Your task to perform on an android device: Search for Mexican restaurants on Maps Image 0: 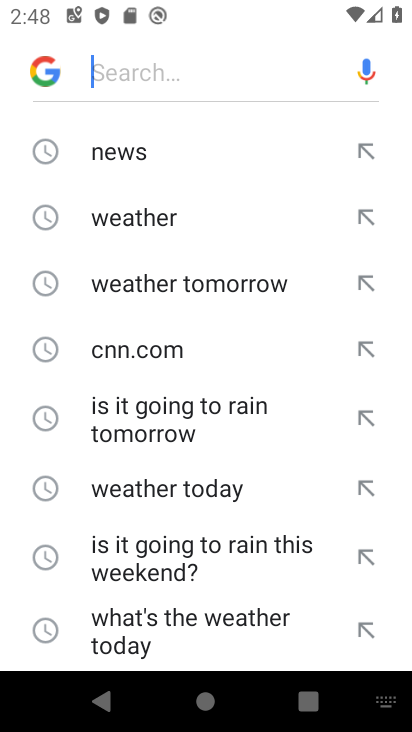
Step 0: press home button
Your task to perform on an android device: Search for Mexican restaurants on Maps Image 1: 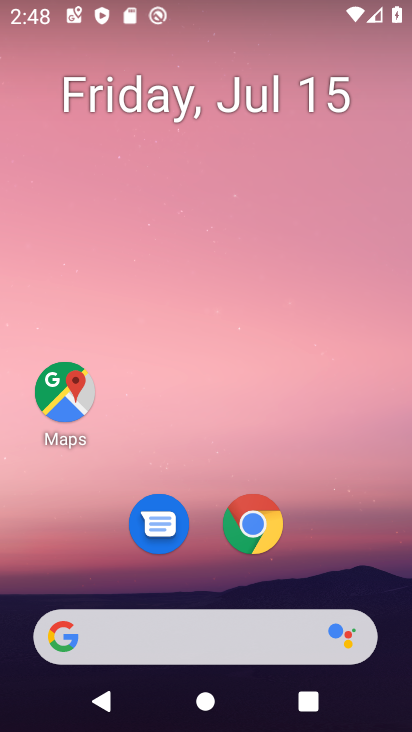
Step 1: click (58, 397)
Your task to perform on an android device: Search for Mexican restaurants on Maps Image 2: 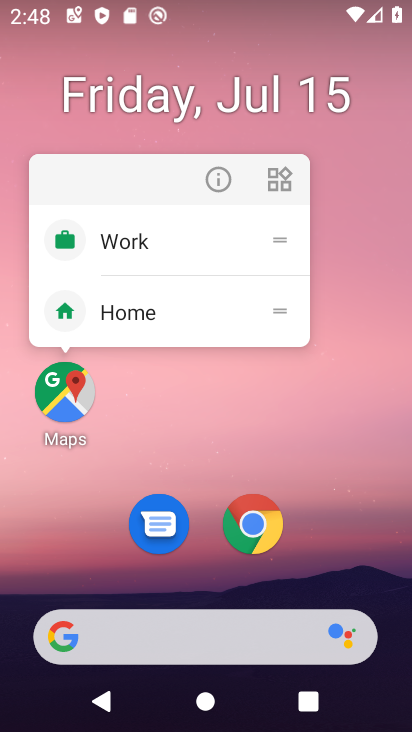
Step 2: click (70, 403)
Your task to perform on an android device: Search for Mexican restaurants on Maps Image 3: 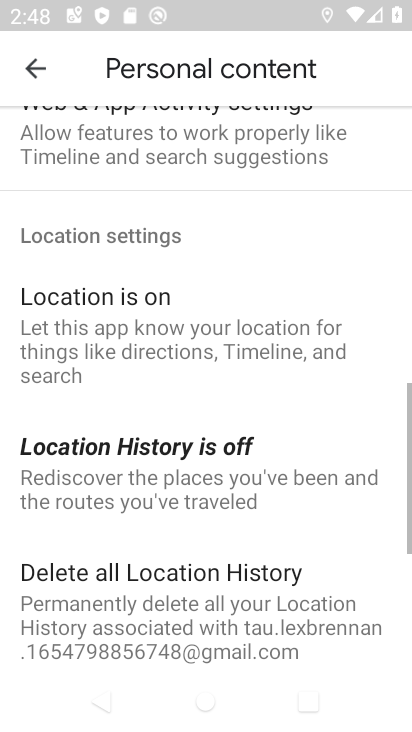
Step 3: click (38, 69)
Your task to perform on an android device: Search for Mexican restaurants on Maps Image 4: 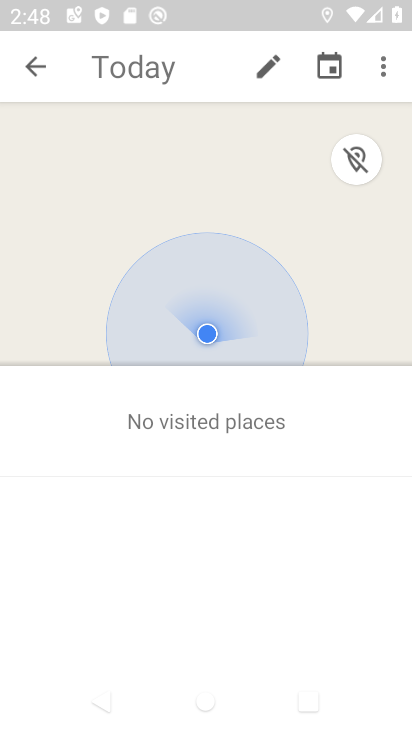
Step 4: click (38, 69)
Your task to perform on an android device: Search for Mexican restaurants on Maps Image 5: 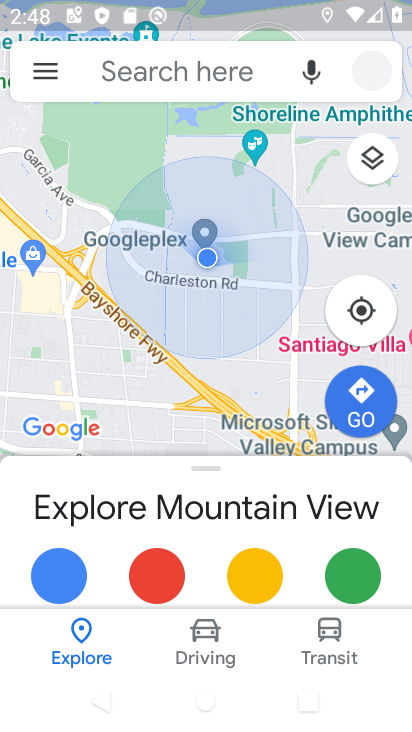
Step 5: click (135, 75)
Your task to perform on an android device: Search for Mexican restaurants on Maps Image 6: 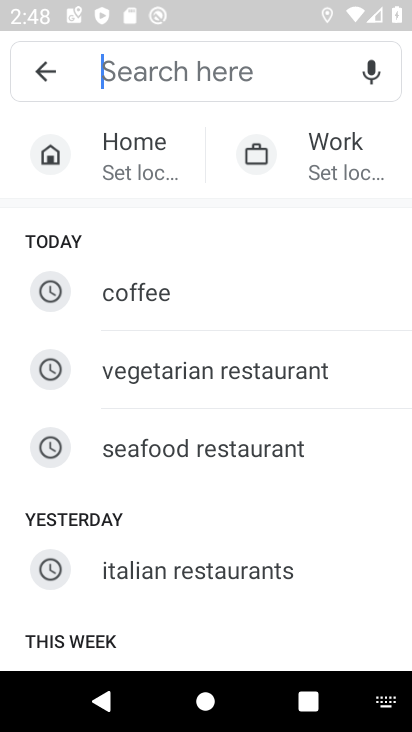
Step 6: drag from (253, 516) to (312, 164)
Your task to perform on an android device: Search for Mexican restaurants on Maps Image 7: 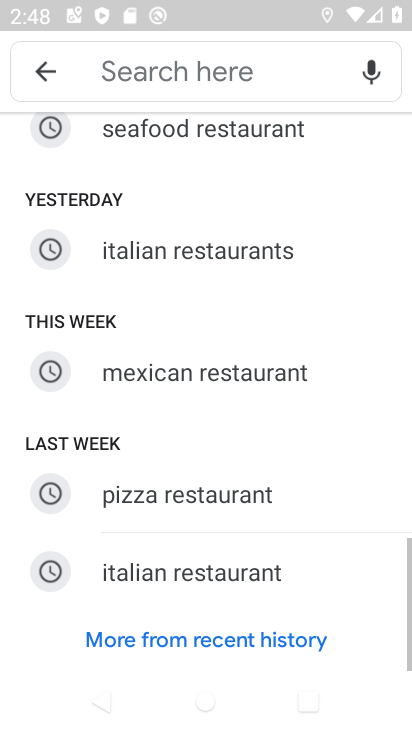
Step 7: click (226, 370)
Your task to perform on an android device: Search for Mexican restaurants on Maps Image 8: 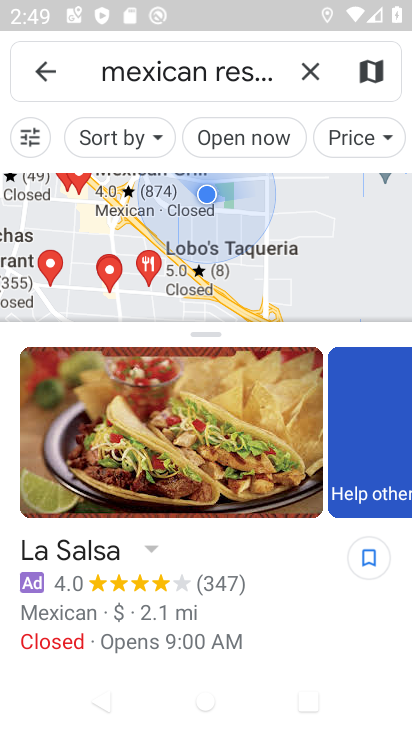
Step 8: task complete